Your task to perform on an android device: Open maps Image 0: 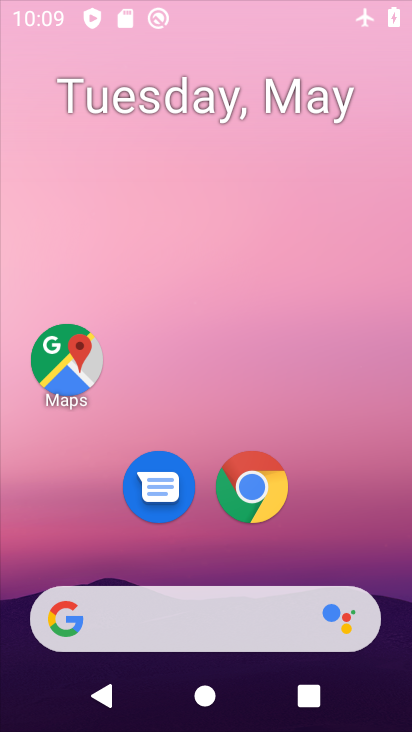
Step 0: click (346, 65)
Your task to perform on an android device: Open maps Image 1: 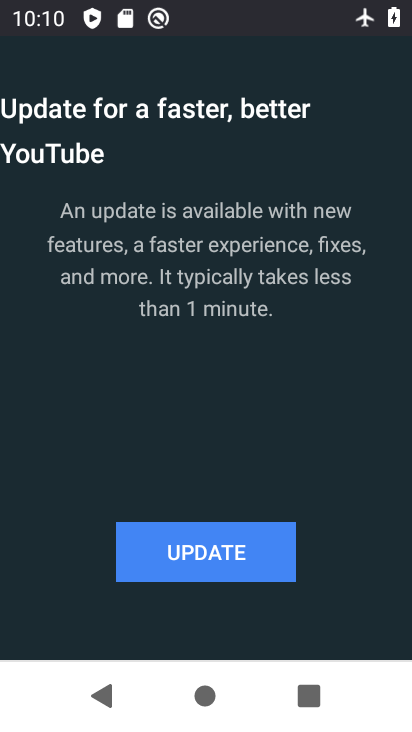
Step 1: press home button
Your task to perform on an android device: Open maps Image 2: 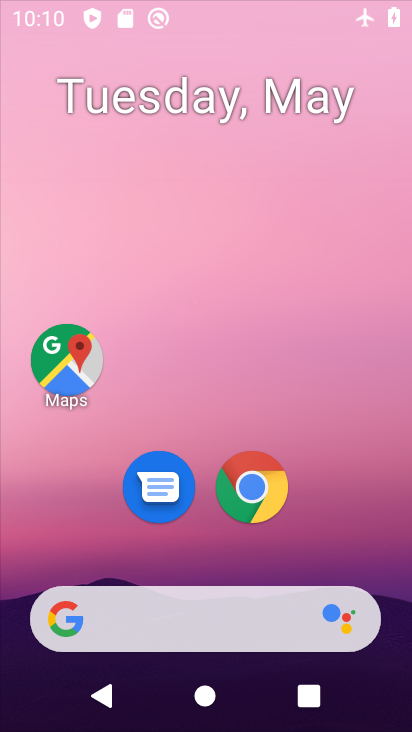
Step 2: drag from (216, 570) to (322, 151)
Your task to perform on an android device: Open maps Image 3: 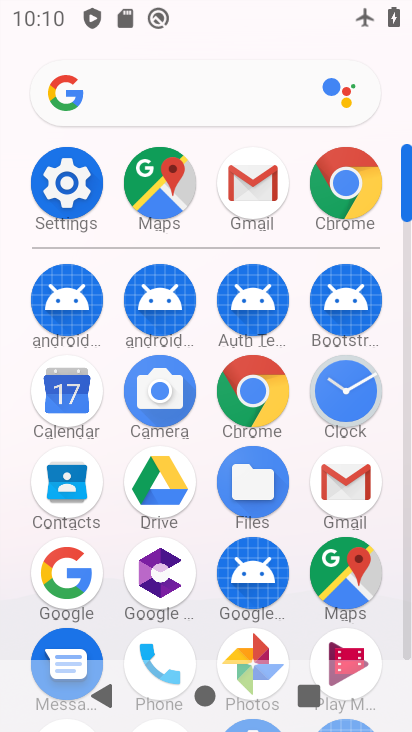
Step 3: click (329, 581)
Your task to perform on an android device: Open maps Image 4: 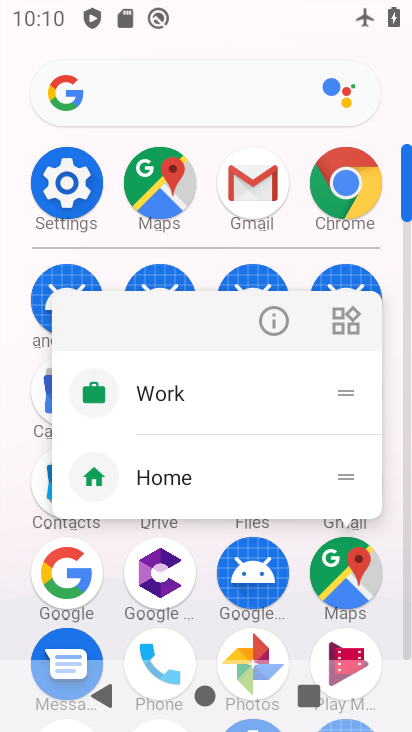
Step 4: click (281, 322)
Your task to perform on an android device: Open maps Image 5: 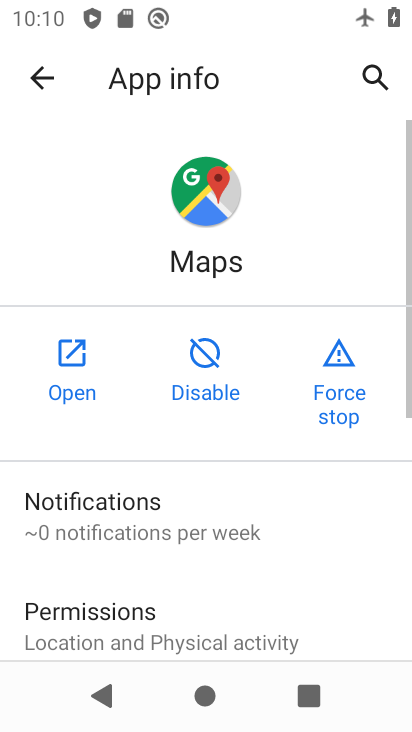
Step 5: click (70, 365)
Your task to perform on an android device: Open maps Image 6: 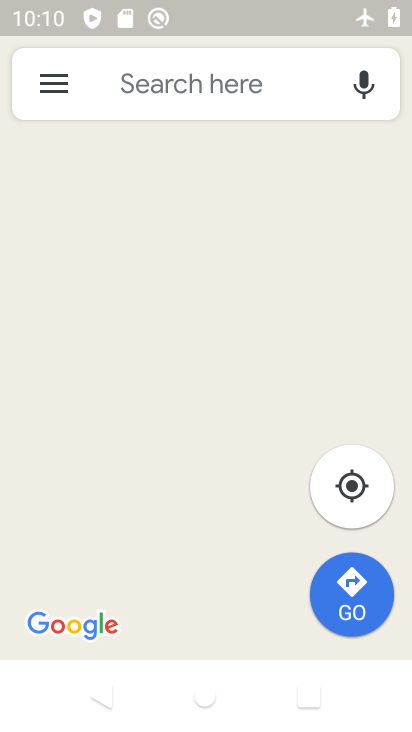
Step 6: task complete